Your task to perform on an android device: Open Google Chrome and click the shortcut for Amazon.com Image 0: 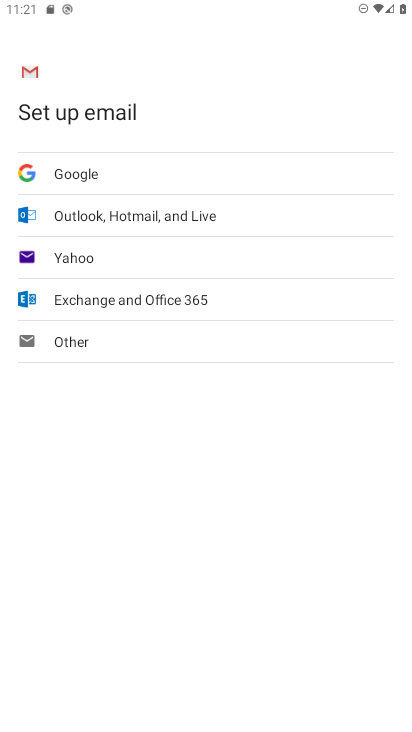
Step 0: press home button
Your task to perform on an android device: Open Google Chrome and click the shortcut for Amazon.com Image 1: 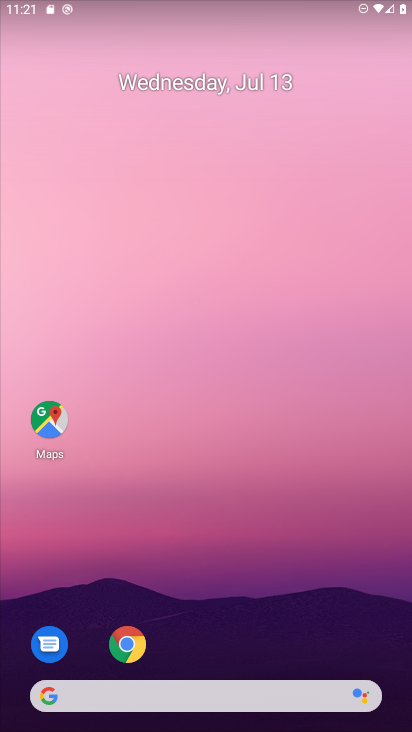
Step 1: click (120, 642)
Your task to perform on an android device: Open Google Chrome and click the shortcut for Amazon.com Image 2: 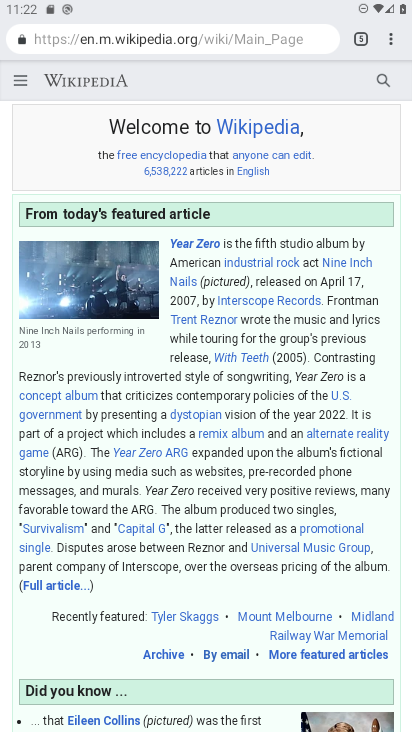
Step 2: click (393, 41)
Your task to perform on an android device: Open Google Chrome and click the shortcut for Amazon.com Image 3: 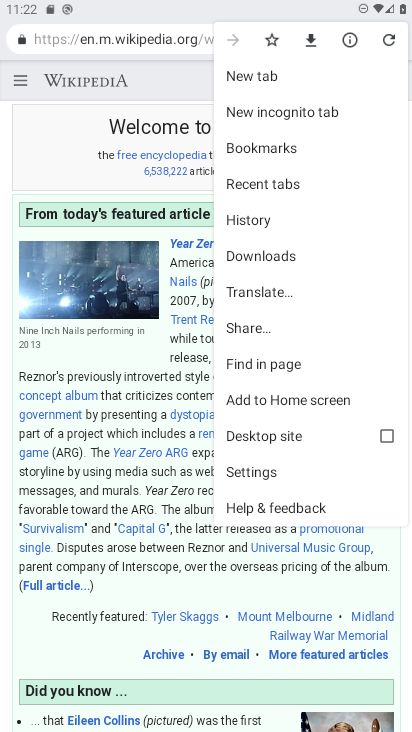
Step 3: click (257, 71)
Your task to perform on an android device: Open Google Chrome and click the shortcut for Amazon.com Image 4: 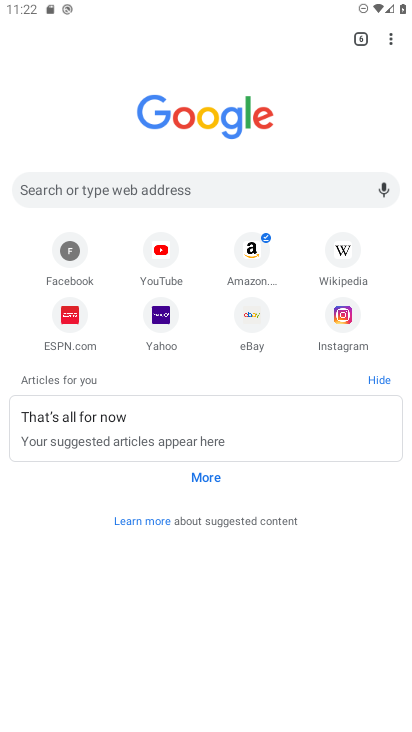
Step 4: click (251, 247)
Your task to perform on an android device: Open Google Chrome and click the shortcut for Amazon.com Image 5: 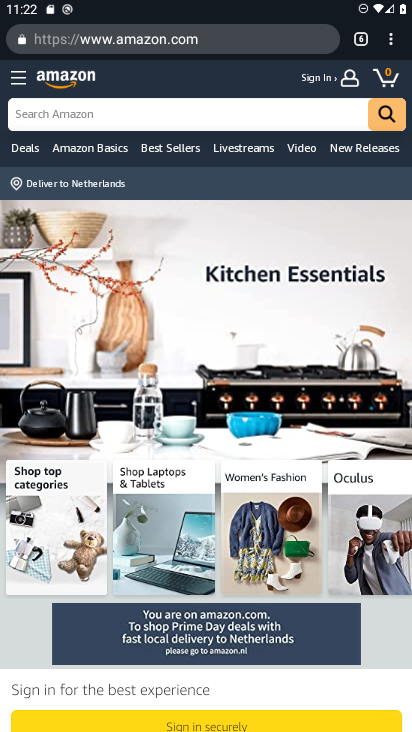
Step 5: task complete